Your task to perform on an android device: turn off javascript in the chrome app Image 0: 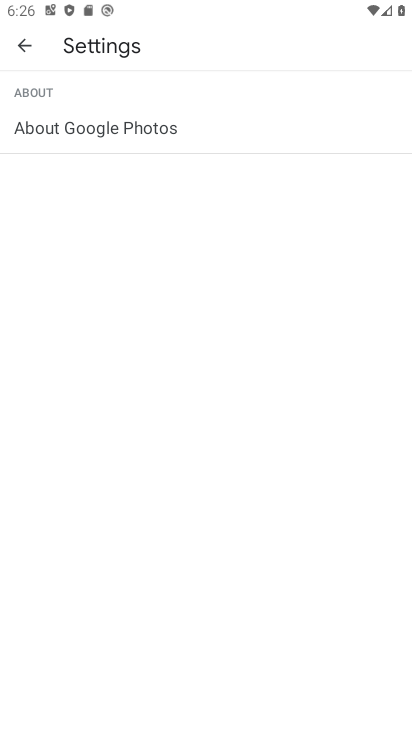
Step 0: press home button
Your task to perform on an android device: turn off javascript in the chrome app Image 1: 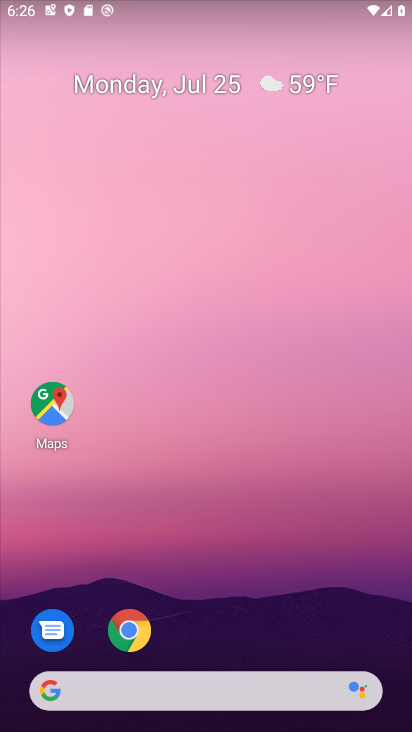
Step 1: click (125, 625)
Your task to perform on an android device: turn off javascript in the chrome app Image 2: 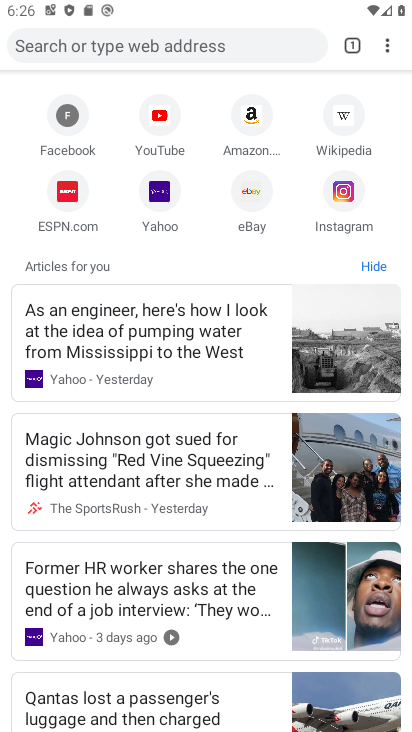
Step 2: click (388, 46)
Your task to perform on an android device: turn off javascript in the chrome app Image 3: 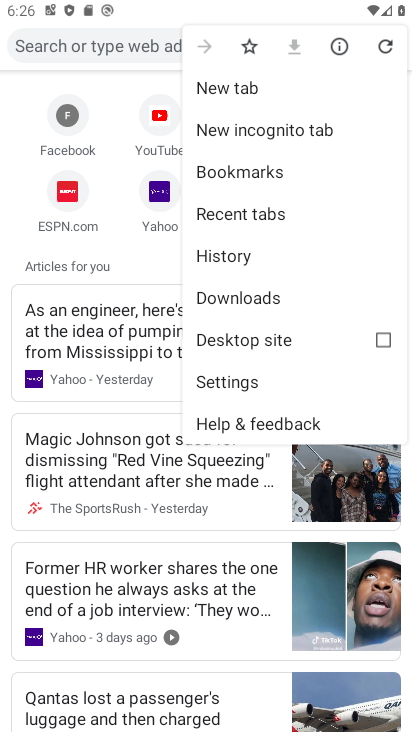
Step 3: click (234, 376)
Your task to perform on an android device: turn off javascript in the chrome app Image 4: 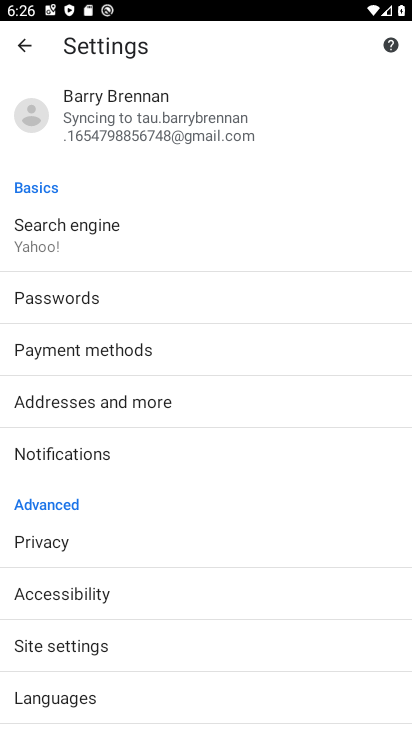
Step 4: click (80, 650)
Your task to perform on an android device: turn off javascript in the chrome app Image 5: 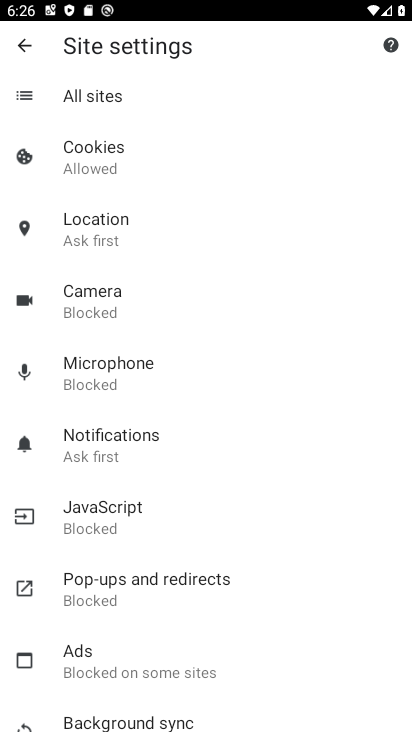
Step 5: click (117, 526)
Your task to perform on an android device: turn off javascript in the chrome app Image 6: 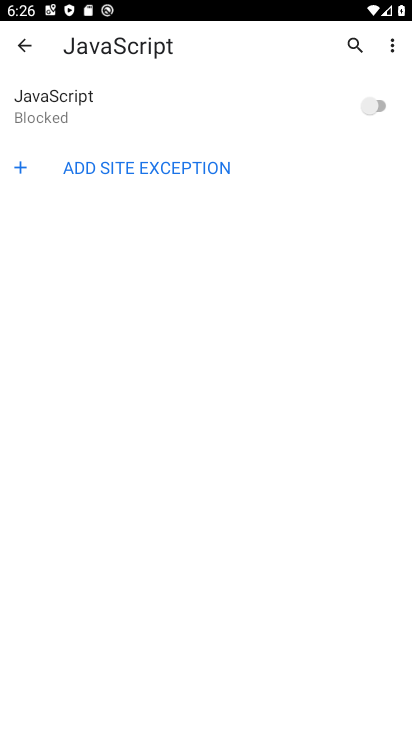
Step 6: task complete